Your task to perform on an android device: open the mobile data screen to see how much data has been used Image 0: 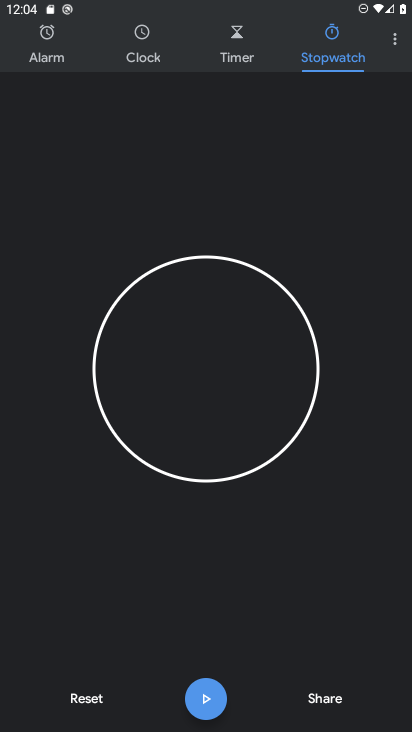
Step 0: press home button
Your task to perform on an android device: open the mobile data screen to see how much data has been used Image 1: 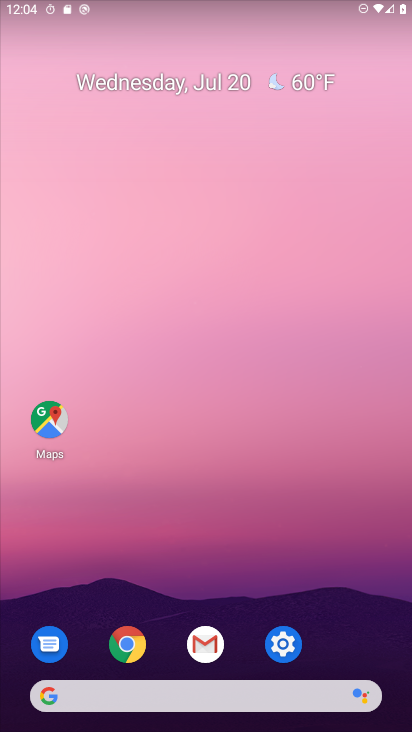
Step 1: click (287, 644)
Your task to perform on an android device: open the mobile data screen to see how much data has been used Image 2: 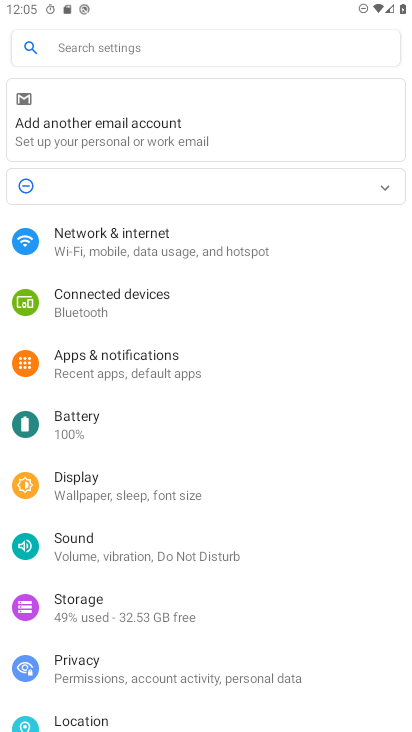
Step 2: click (124, 49)
Your task to perform on an android device: open the mobile data screen to see how much data has been used Image 3: 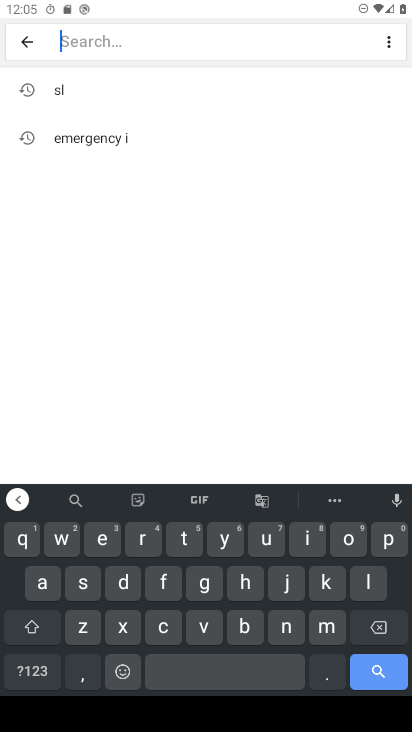
Step 3: click (122, 589)
Your task to perform on an android device: open the mobile data screen to see how much data has been used Image 4: 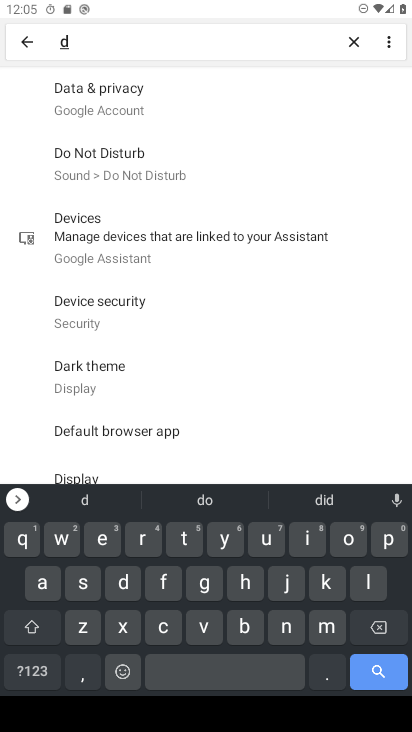
Step 4: click (37, 586)
Your task to perform on an android device: open the mobile data screen to see how much data has been used Image 5: 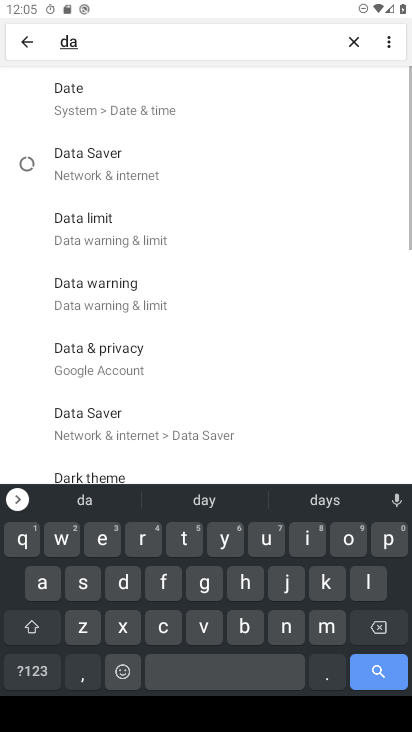
Step 5: click (182, 544)
Your task to perform on an android device: open the mobile data screen to see how much data has been used Image 6: 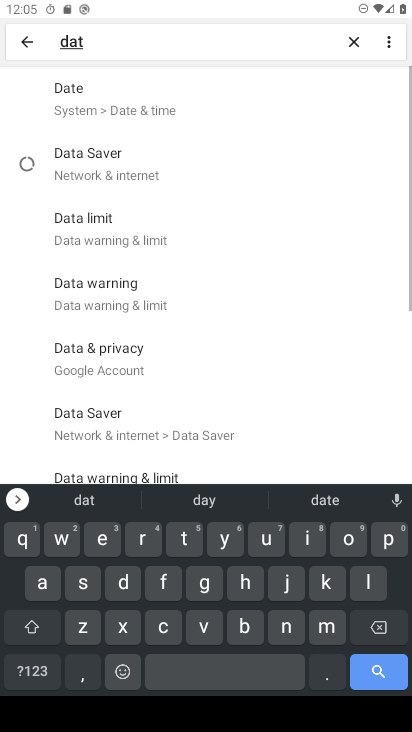
Step 6: click (39, 589)
Your task to perform on an android device: open the mobile data screen to see how much data has been used Image 7: 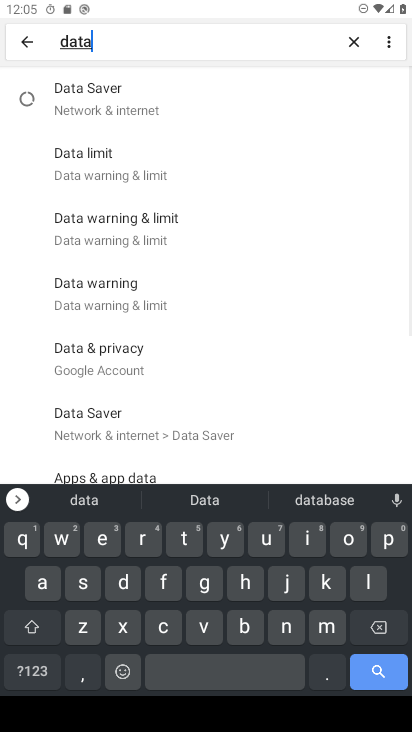
Step 7: click (205, 669)
Your task to perform on an android device: open the mobile data screen to see how much data has been used Image 8: 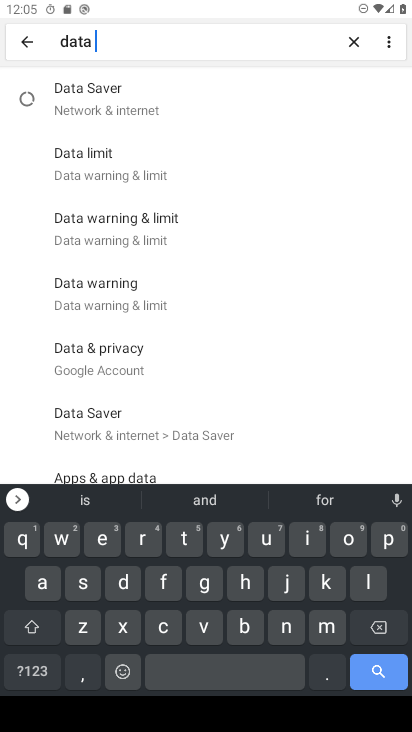
Step 8: click (257, 540)
Your task to perform on an android device: open the mobile data screen to see how much data has been used Image 9: 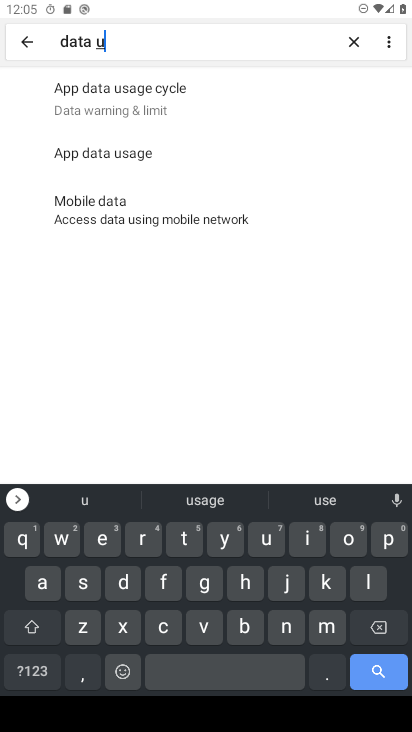
Step 9: click (119, 148)
Your task to perform on an android device: open the mobile data screen to see how much data has been used Image 10: 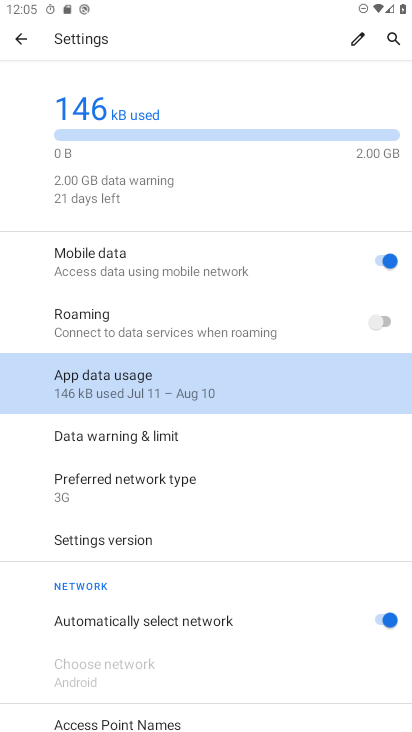
Step 10: click (98, 376)
Your task to perform on an android device: open the mobile data screen to see how much data has been used Image 11: 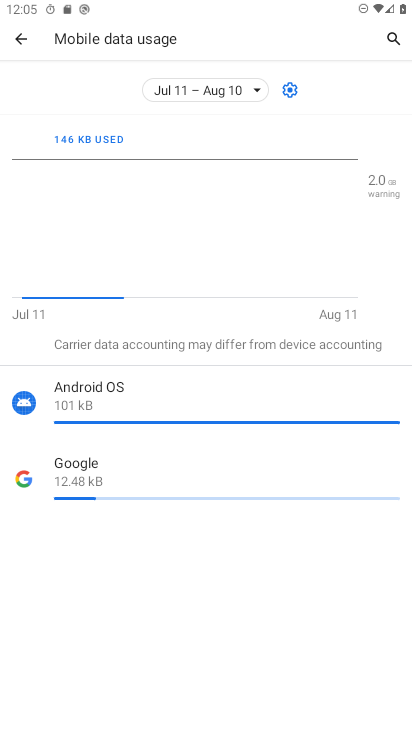
Step 11: task complete